Your task to perform on an android device: What's the weather going to be tomorrow? Image 0: 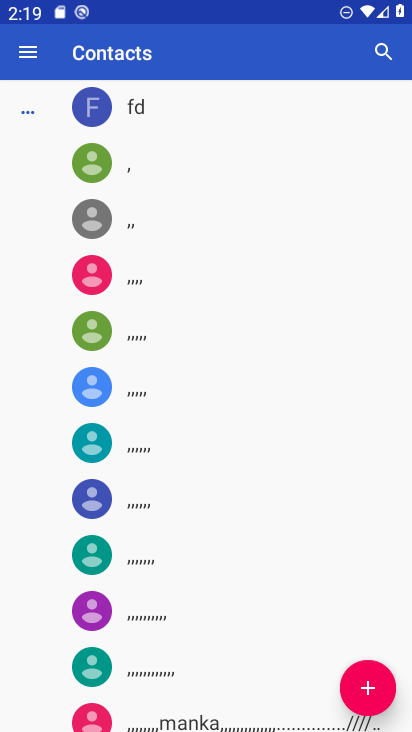
Step 0: press home button
Your task to perform on an android device: What's the weather going to be tomorrow? Image 1: 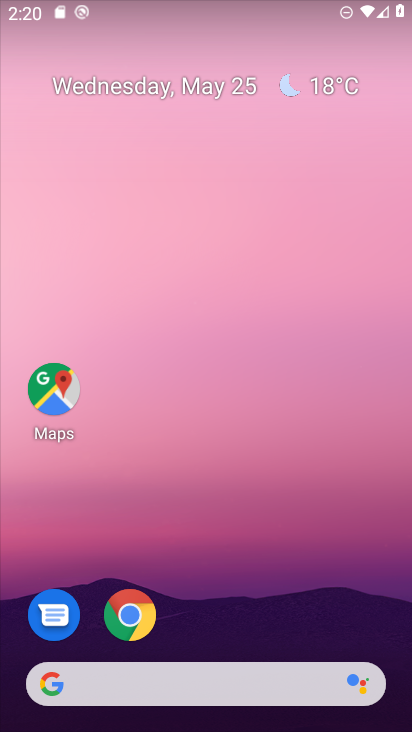
Step 1: click (212, 680)
Your task to perform on an android device: What's the weather going to be tomorrow? Image 2: 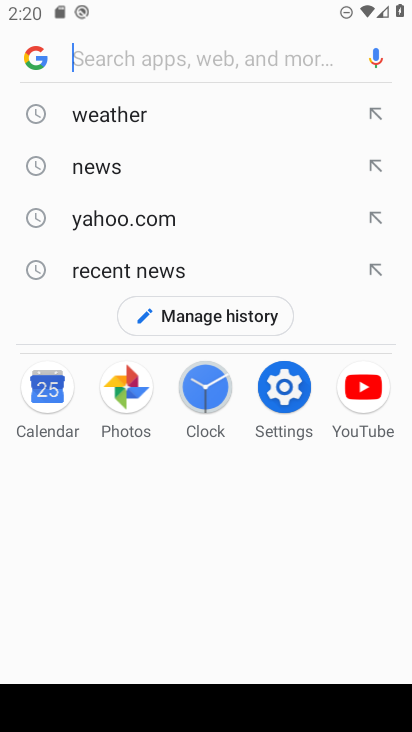
Step 2: click (119, 121)
Your task to perform on an android device: What's the weather going to be tomorrow? Image 3: 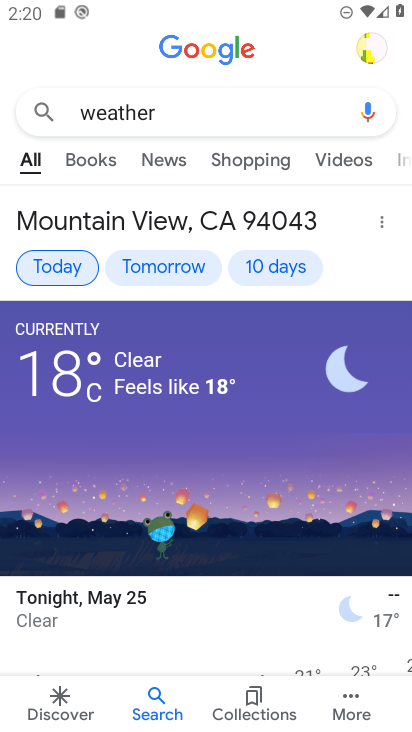
Step 3: click (68, 256)
Your task to perform on an android device: What's the weather going to be tomorrow? Image 4: 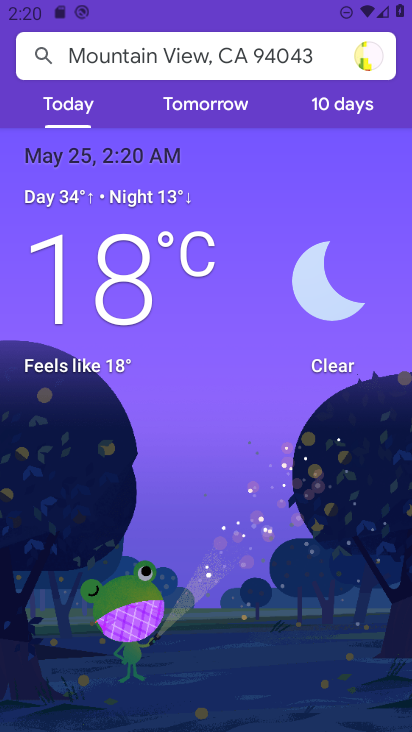
Step 4: click (215, 101)
Your task to perform on an android device: What's the weather going to be tomorrow? Image 5: 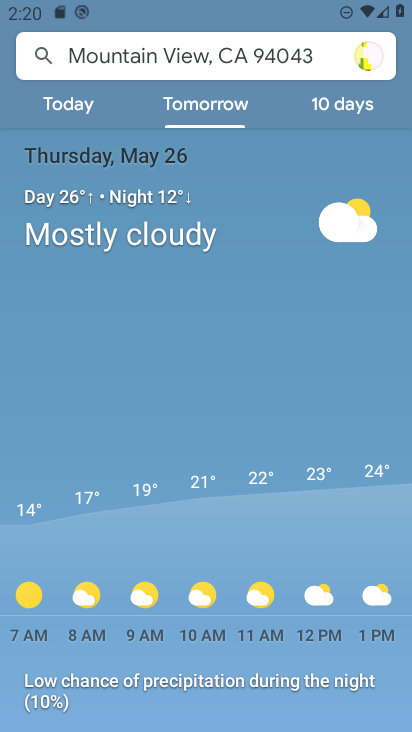
Step 5: task complete